Your task to perform on an android device: choose inbox layout in the gmail app Image 0: 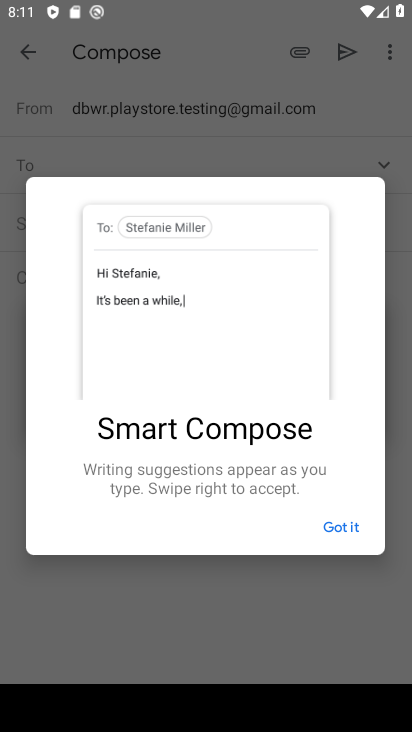
Step 0: press home button
Your task to perform on an android device: choose inbox layout in the gmail app Image 1: 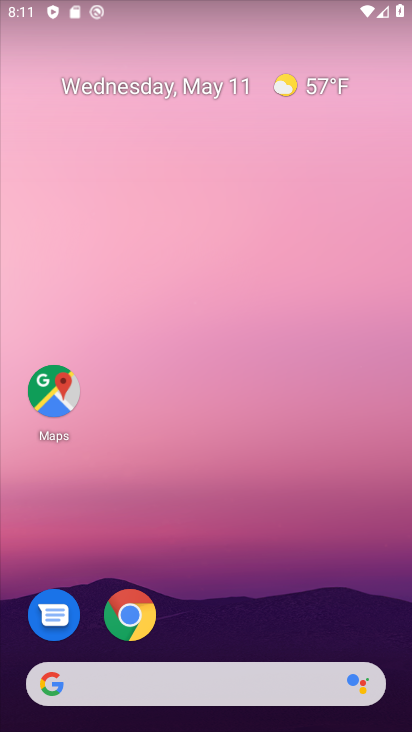
Step 1: drag from (254, 614) to (294, 129)
Your task to perform on an android device: choose inbox layout in the gmail app Image 2: 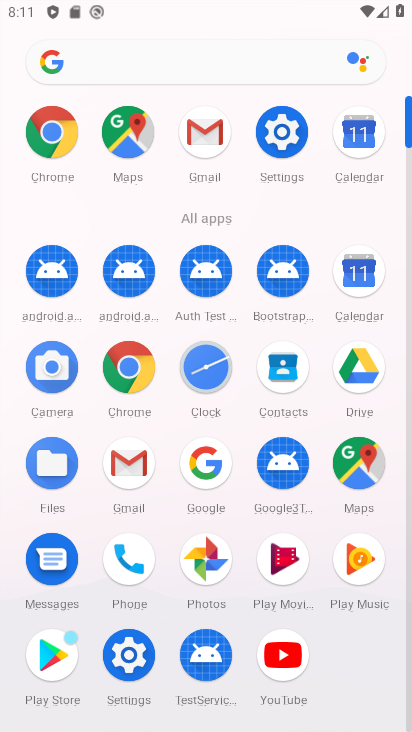
Step 2: click (211, 148)
Your task to perform on an android device: choose inbox layout in the gmail app Image 3: 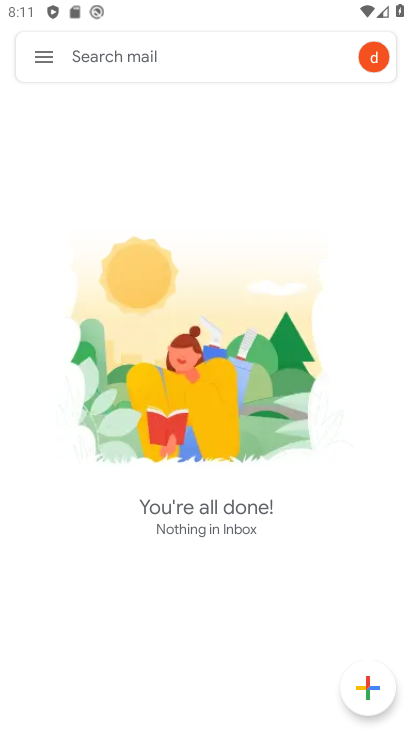
Step 3: click (44, 57)
Your task to perform on an android device: choose inbox layout in the gmail app Image 4: 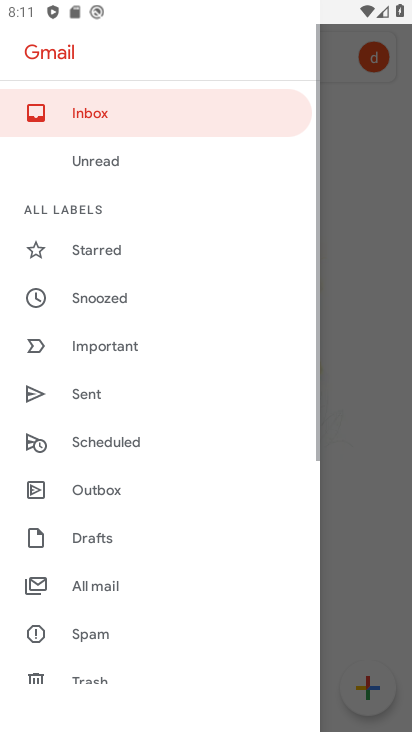
Step 4: click (72, 111)
Your task to perform on an android device: choose inbox layout in the gmail app Image 5: 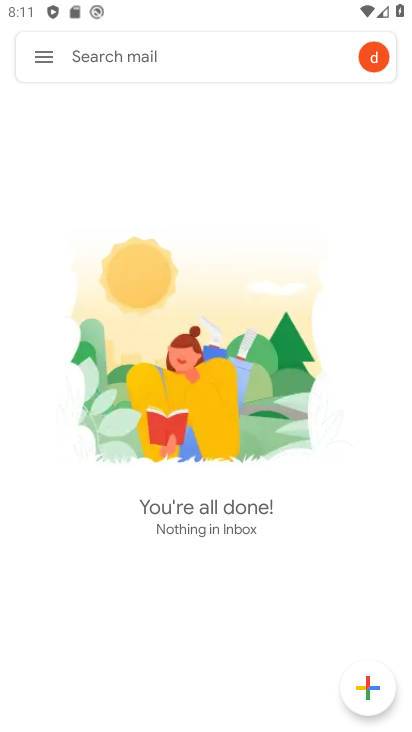
Step 5: task complete